Your task to perform on an android device: Go to battery settings Image 0: 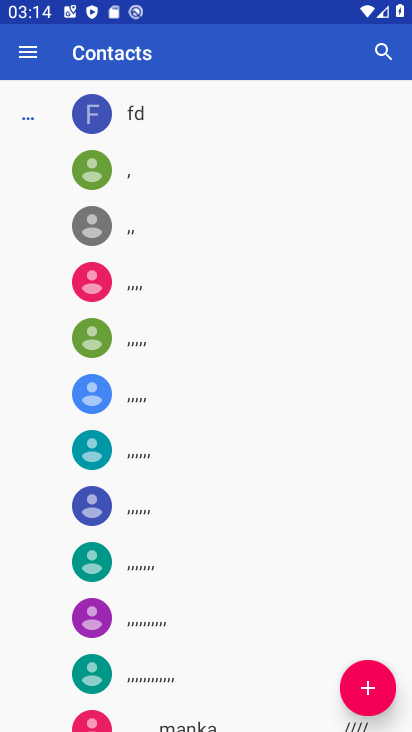
Step 0: press home button
Your task to perform on an android device: Go to battery settings Image 1: 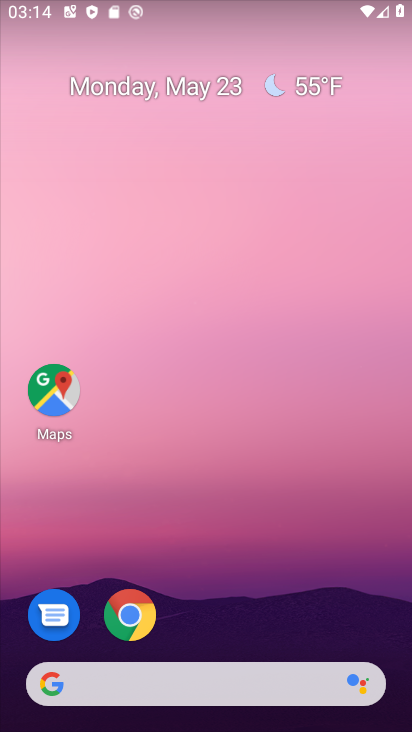
Step 1: drag from (379, 640) to (362, 256)
Your task to perform on an android device: Go to battery settings Image 2: 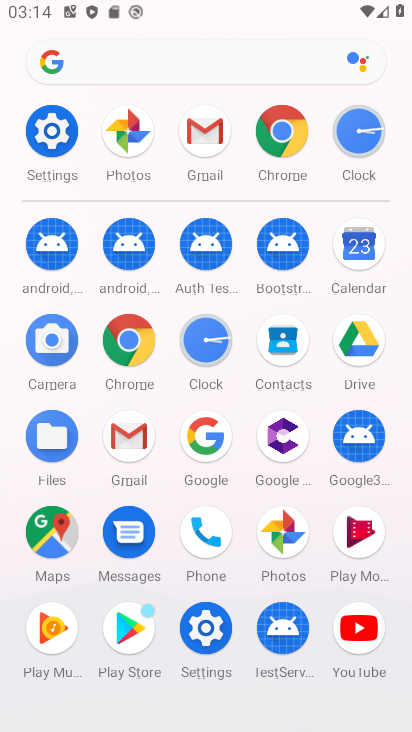
Step 2: click (213, 636)
Your task to perform on an android device: Go to battery settings Image 3: 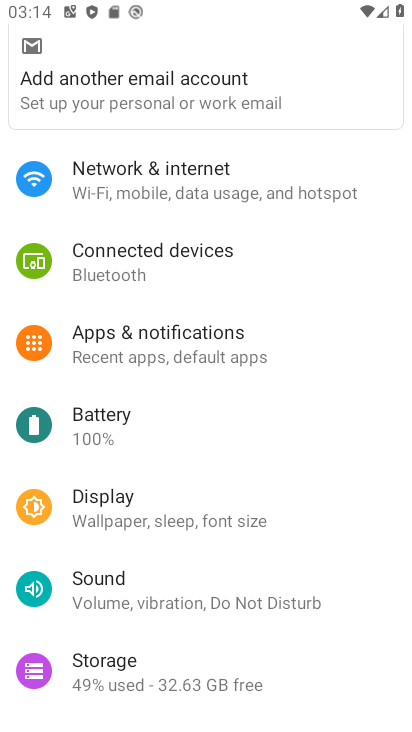
Step 3: drag from (348, 304) to (317, 525)
Your task to perform on an android device: Go to battery settings Image 4: 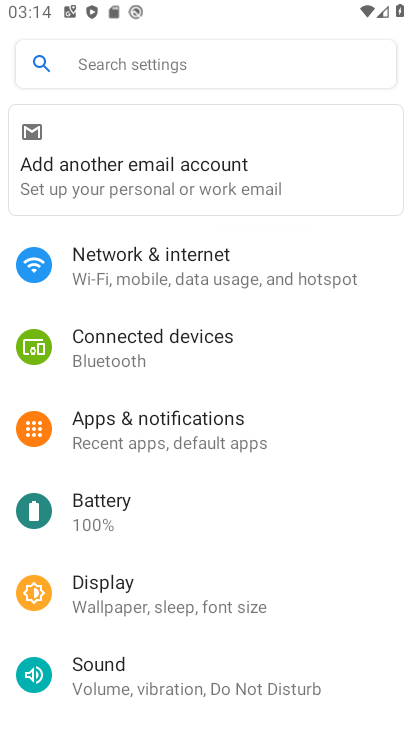
Step 4: drag from (337, 608) to (332, 412)
Your task to perform on an android device: Go to battery settings Image 5: 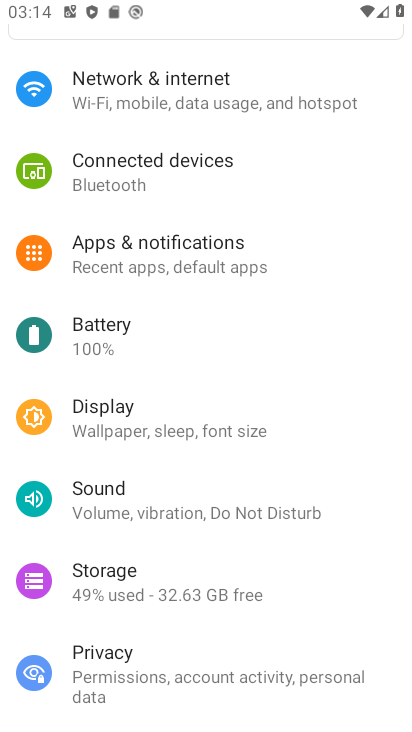
Step 5: drag from (332, 644) to (321, 445)
Your task to perform on an android device: Go to battery settings Image 6: 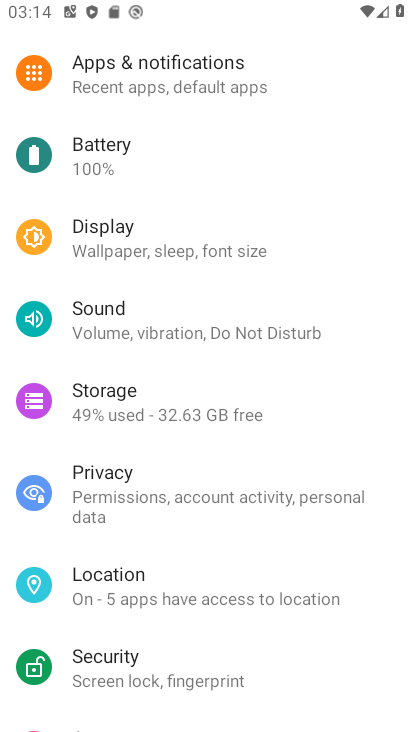
Step 6: drag from (338, 661) to (354, 521)
Your task to perform on an android device: Go to battery settings Image 7: 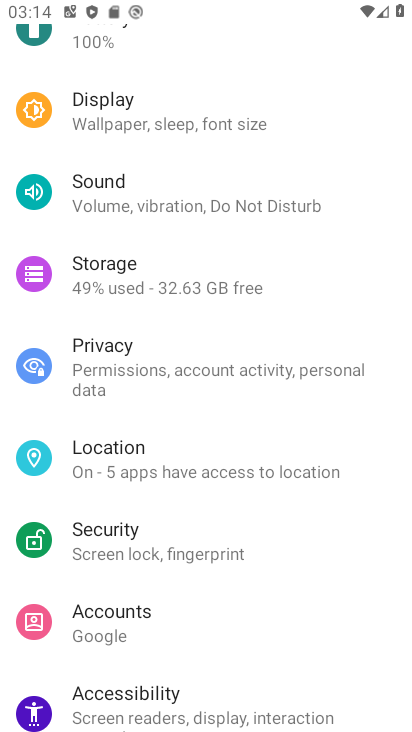
Step 7: drag from (344, 633) to (350, 502)
Your task to perform on an android device: Go to battery settings Image 8: 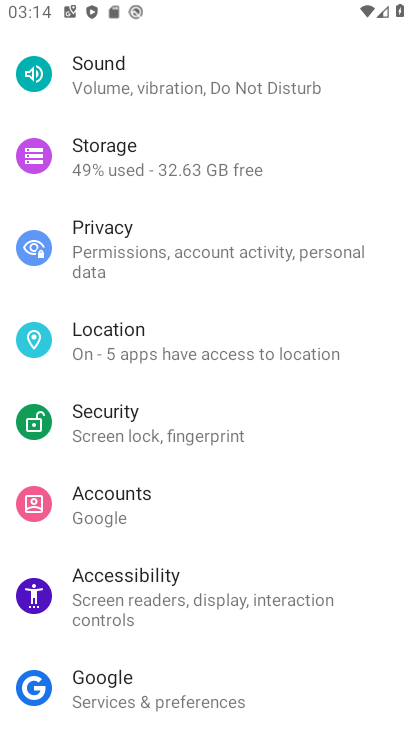
Step 8: drag from (346, 645) to (369, 453)
Your task to perform on an android device: Go to battery settings Image 9: 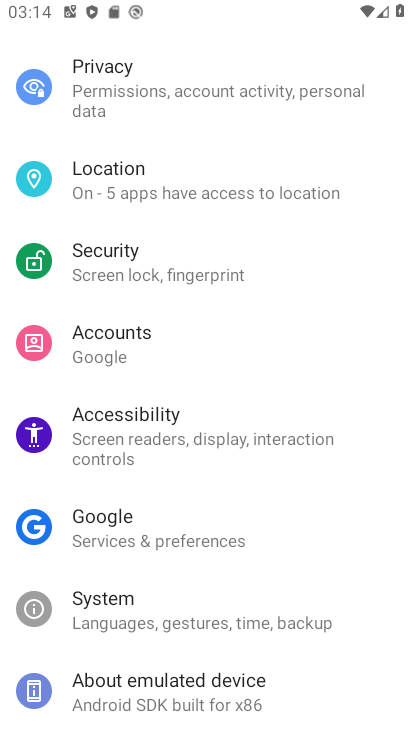
Step 9: drag from (372, 644) to (368, 461)
Your task to perform on an android device: Go to battery settings Image 10: 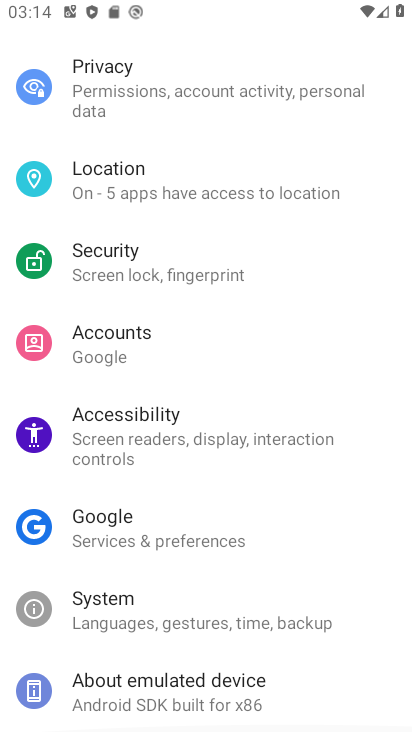
Step 10: drag from (359, 343) to (339, 489)
Your task to perform on an android device: Go to battery settings Image 11: 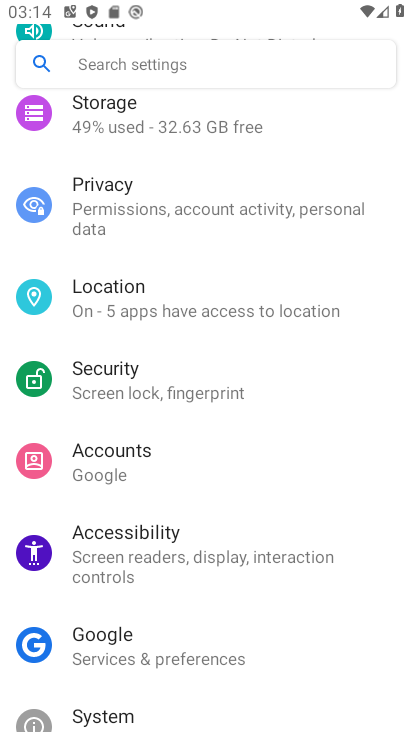
Step 11: drag from (347, 271) to (331, 429)
Your task to perform on an android device: Go to battery settings Image 12: 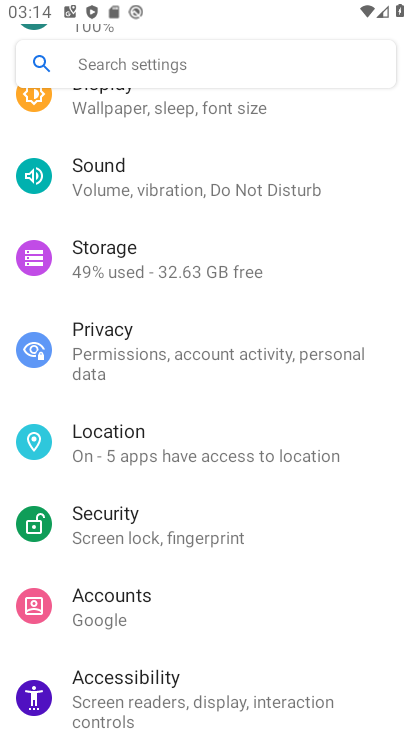
Step 12: drag from (353, 250) to (334, 413)
Your task to perform on an android device: Go to battery settings Image 13: 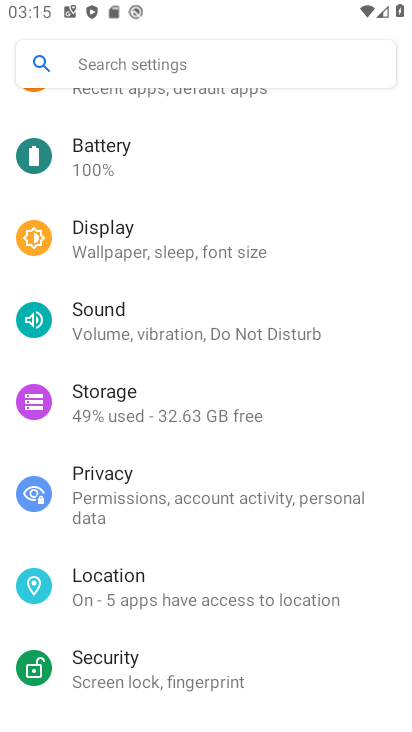
Step 13: drag from (360, 247) to (343, 414)
Your task to perform on an android device: Go to battery settings Image 14: 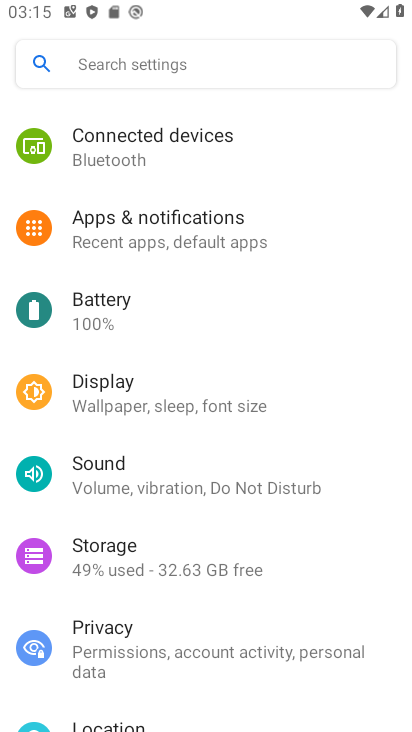
Step 14: drag from (356, 247) to (343, 435)
Your task to perform on an android device: Go to battery settings Image 15: 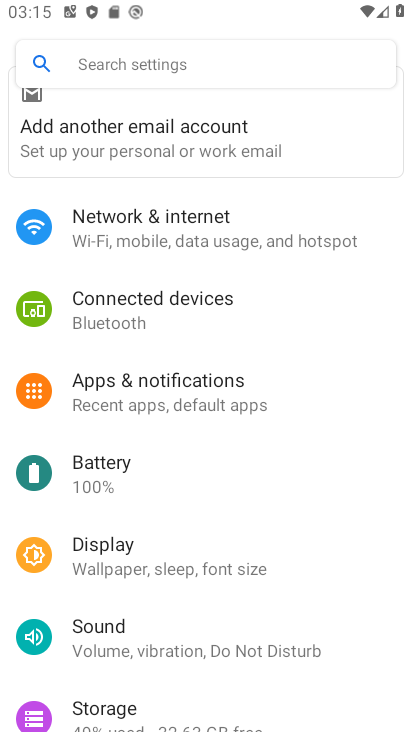
Step 15: drag from (344, 300) to (342, 472)
Your task to perform on an android device: Go to battery settings Image 16: 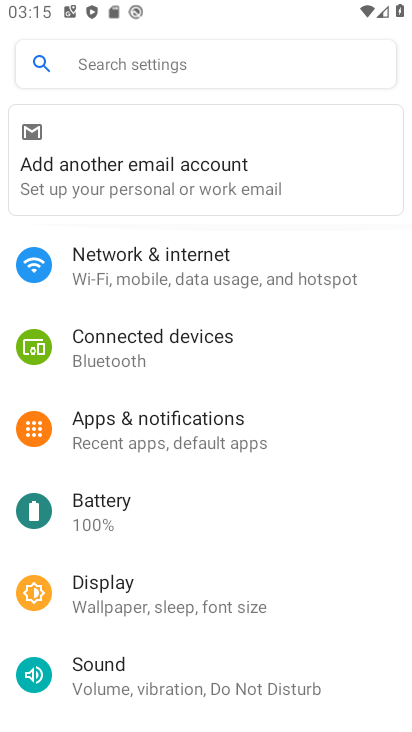
Step 16: drag from (343, 533) to (353, 346)
Your task to perform on an android device: Go to battery settings Image 17: 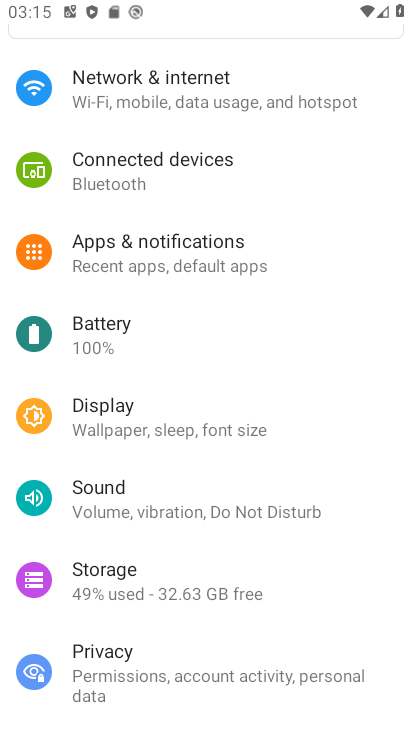
Step 17: drag from (344, 593) to (363, 433)
Your task to perform on an android device: Go to battery settings Image 18: 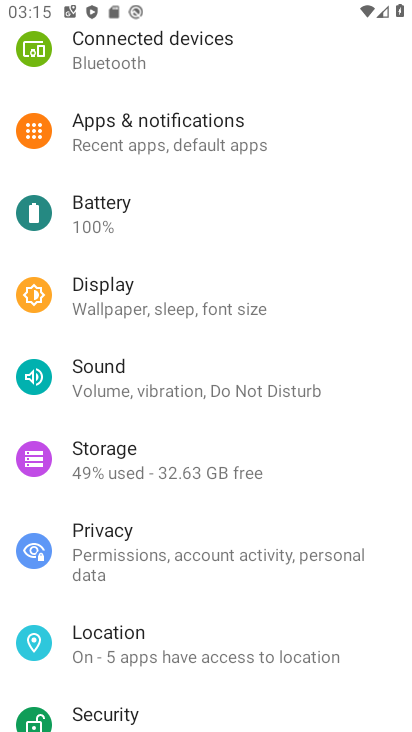
Step 18: drag from (366, 601) to (349, 401)
Your task to perform on an android device: Go to battery settings Image 19: 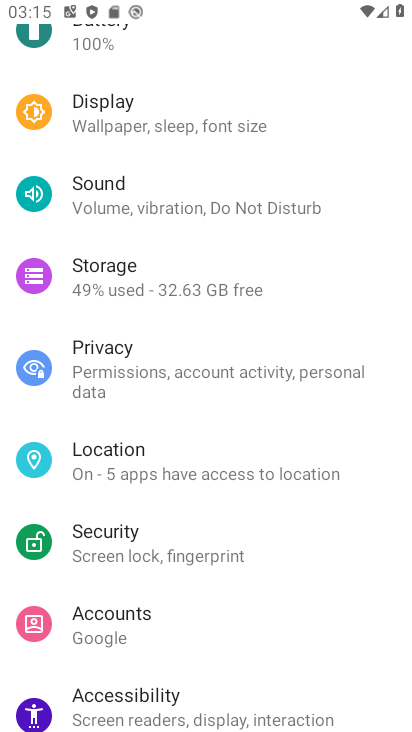
Step 19: drag from (359, 563) to (367, 446)
Your task to perform on an android device: Go to battery settings Image 20: 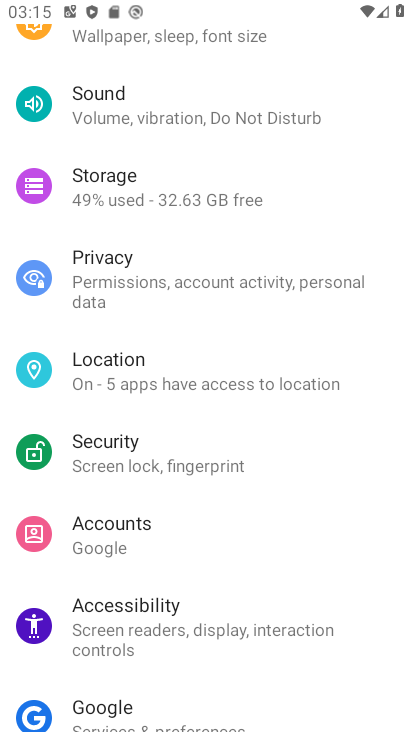
Step 20: drag from (330, 322) to (319, 477)
Your task to perform on an android device: Go to battery settings Image 21: 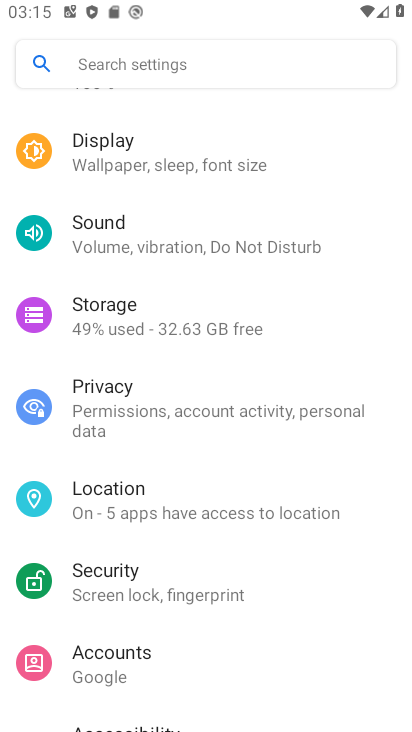
Step 21: drag from (355, 217) to (341, 454)
Your task to perform on an android device: Go to battery settings Image 22: 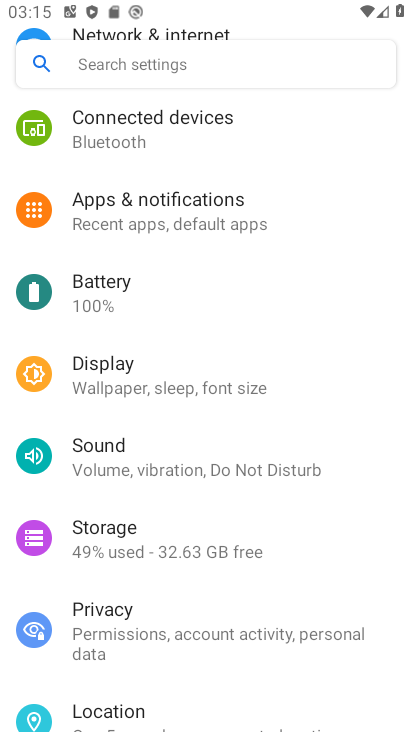
Step 22: click (117, 298)
Your task to perform on an android device: Go to battery settings Image 23: 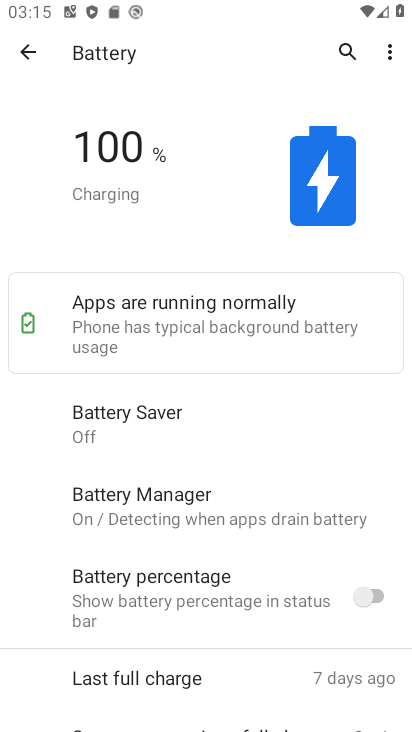
Step 23: task complete